Your task to perform on an android device: turn pop-ups off in chrome Image 0: 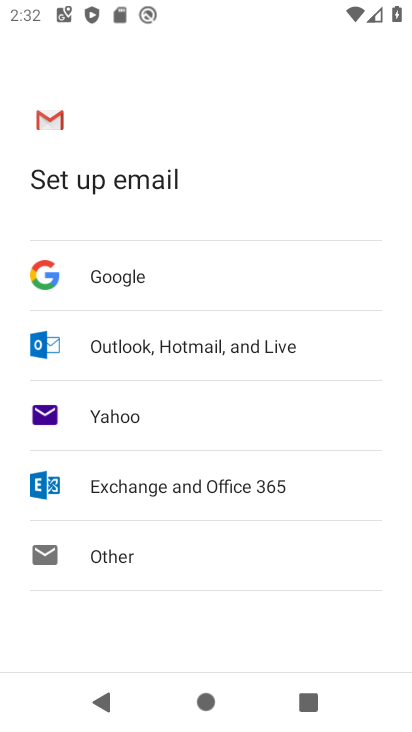
Step 0: press back button
Your task to perform on an android device: turn pop-ups off in chrome Image 1: 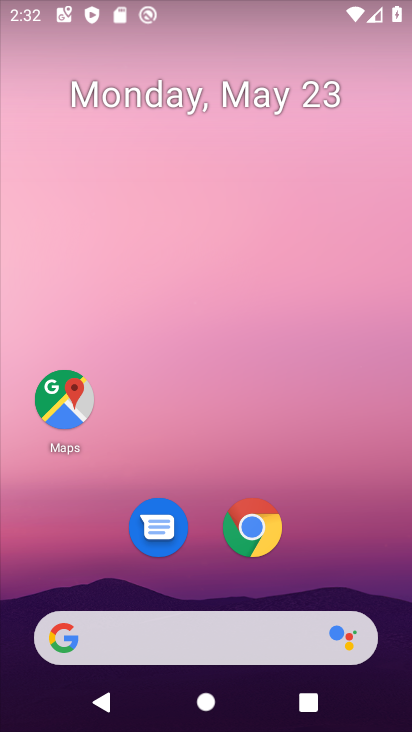
Step 1: drag from (346, 541) to (337, 43)
Your task to perform on an android device: turn pop-ups off in chrome Image 2: 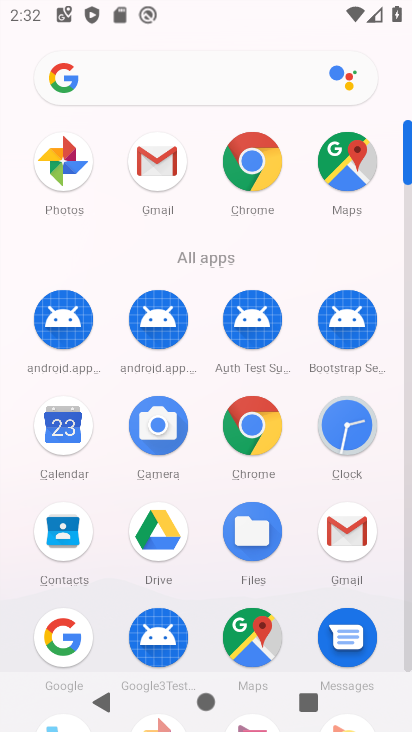
Step 2: drag from (7, 590) to (19, 269)
Your task to perform on an android device: turn pop-ups off in chrome Image 3: 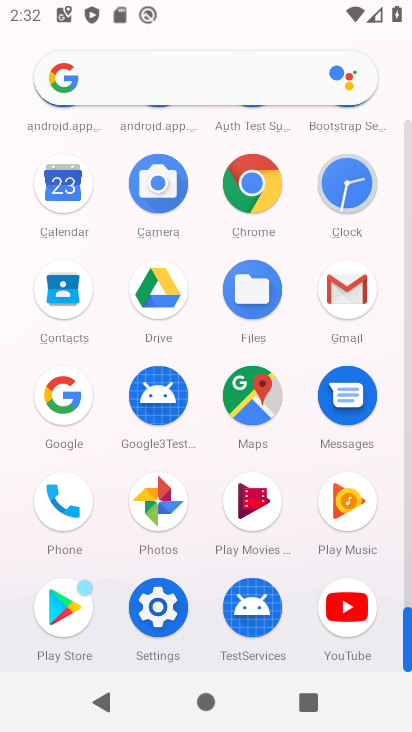
Step 3: click (257, 182)
Your task to perform on an android device: turn pop-ups off in chrome Image 4: 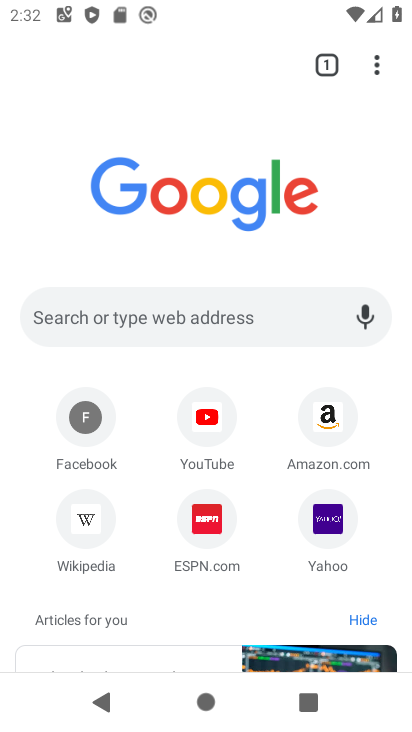
Step 4: drag from (373, 57) to (178, 555)
Your task to perform on an android device: turn pop-ups off in chrome Image 5: 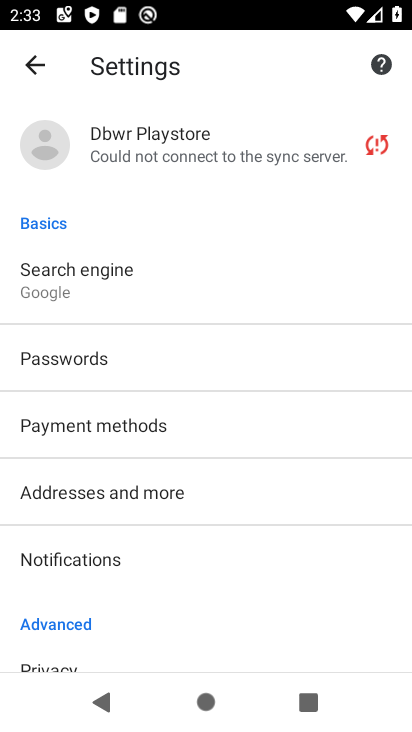
Step 5: drag from (216, 521) to (226, 150)
Your task to perform on an android device: turn pop-ups off in chrome Image 6: 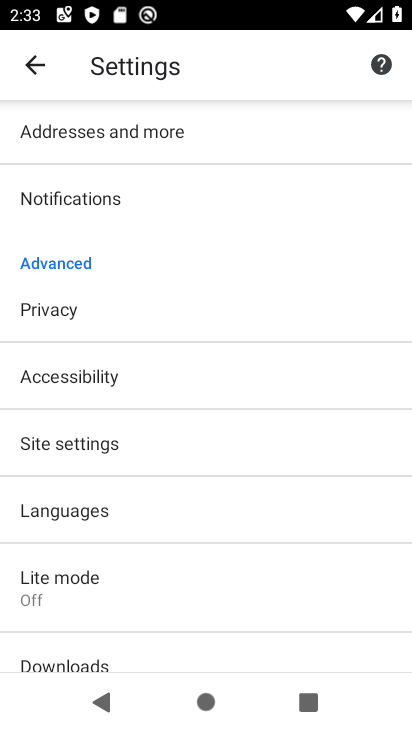
Step 6: drag from (217, 547) to (238, 165)
Your task to perform on an android device: turn pop-ups off in chrome Image 7: 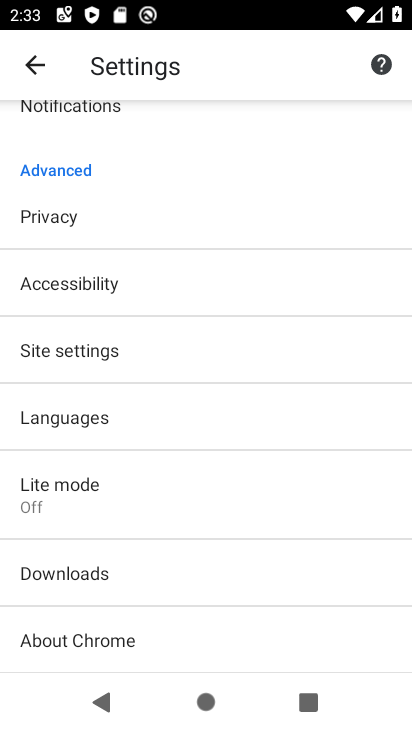
Step 7: drag from (205, 599) to (204, 188)
Your task to perform on an android device: turn pop-ups off in chrome Image 8: 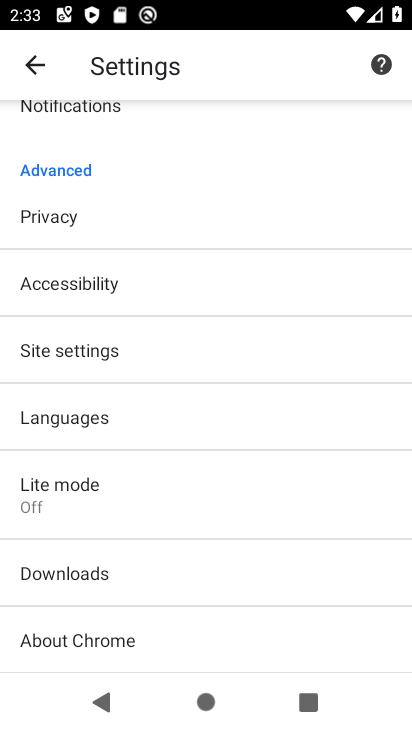
Step 8: click (111, 349)
Your task to perform on an android device: turn pop-ups off in chrome Image 9: 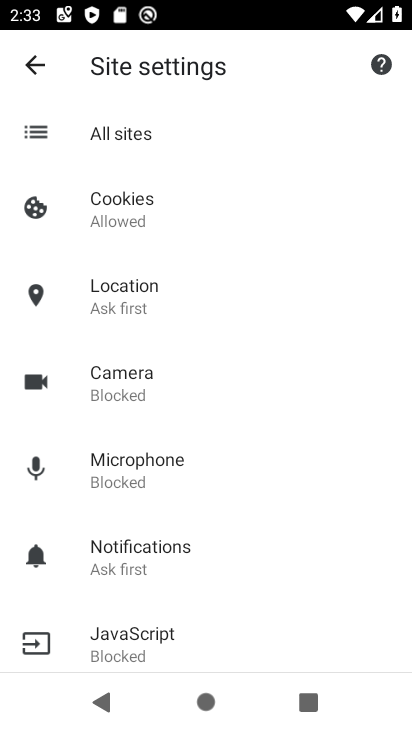
Step 9: drag from (232, 599) to (255, 168)
Your task to perform on an android device: turn pop-ups off in chrome Image 10: 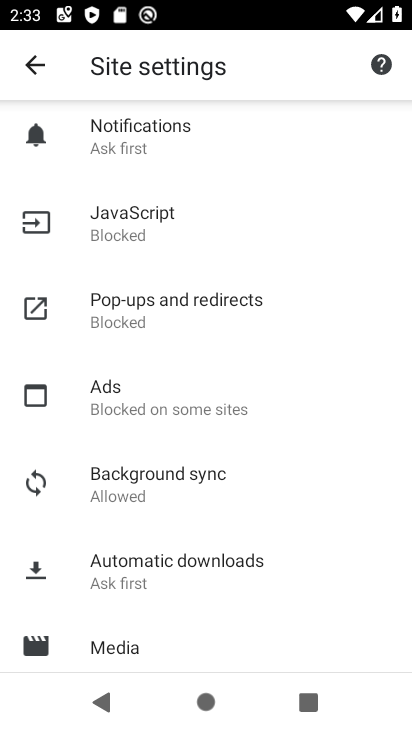
Step 10: click (210, 314)
Your task to perform on an android device: turn pop-ups off in chrome Image 11: 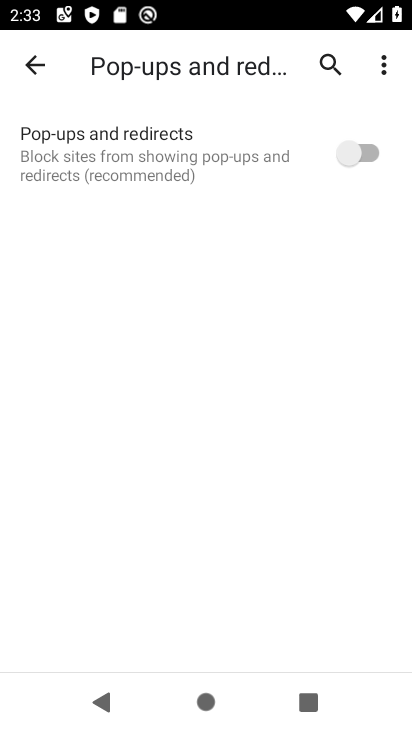
Step 11: task complete